Your task to perform on an android device: Open wifi settings Image 0: 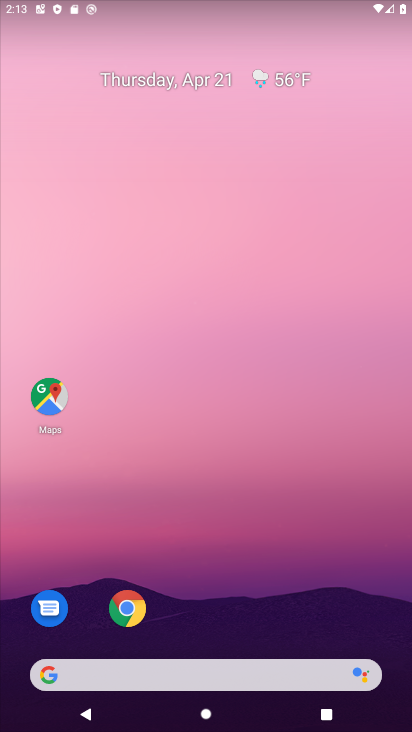
Step 0: drag from (225, 541) to (174, 91)
Your task to perform on an android device: Open wifi settings Image 1: 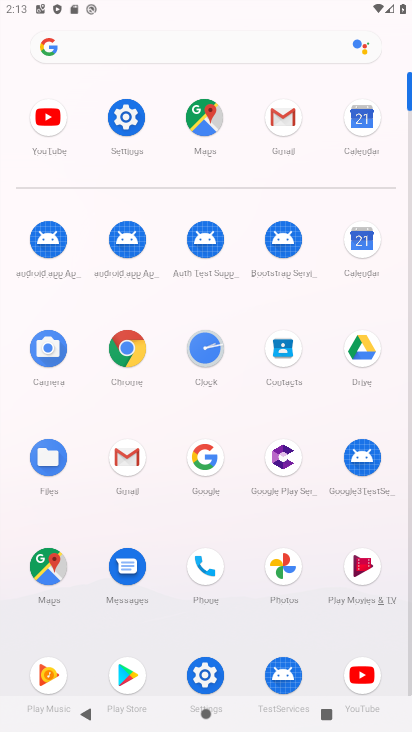
Step 1: click (118, 126)
Your task to perform on an android device: Open wifi settings Image 2: 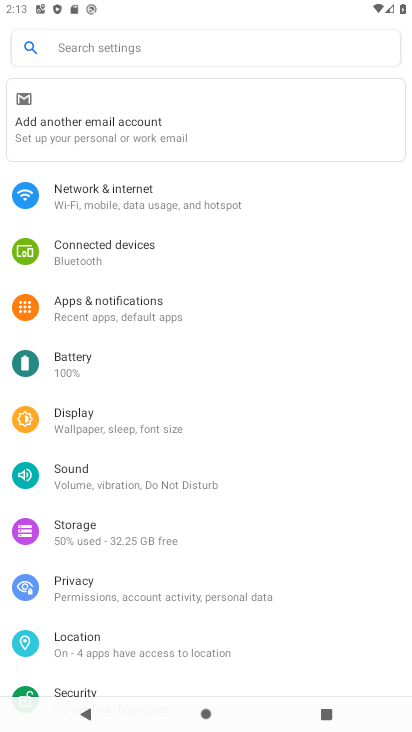
Step 2: click (148, 204)
Your task to perform on an android device: Open wifi settings Image 3: 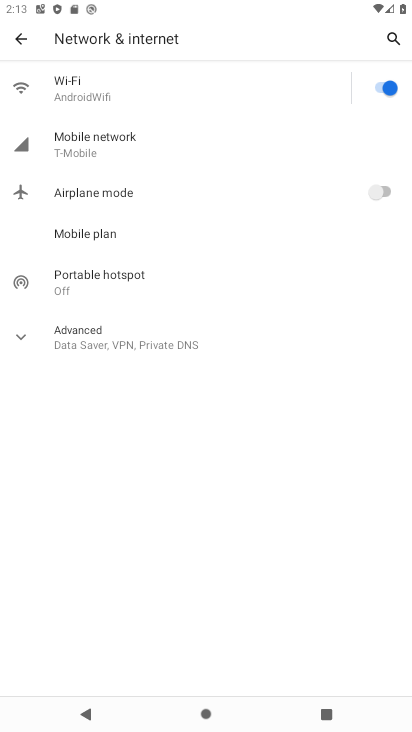
Step 3: click (86, 88)
Your task to perform on an android device: Open wifi settings Image 4: 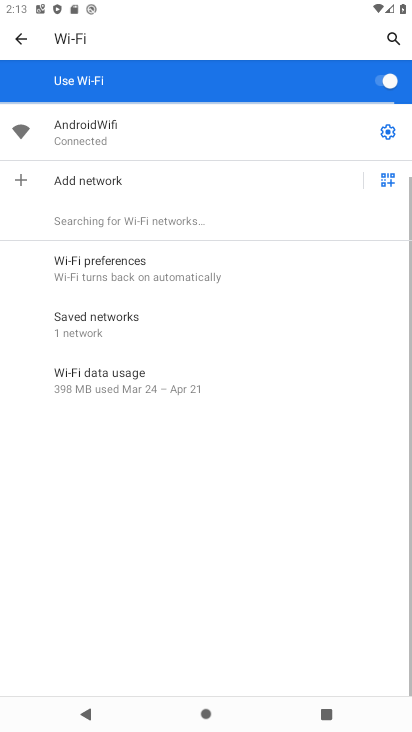
Step 4: task complete